Your task to perform on an android device: search for starred emails in the gmail app Image 0: 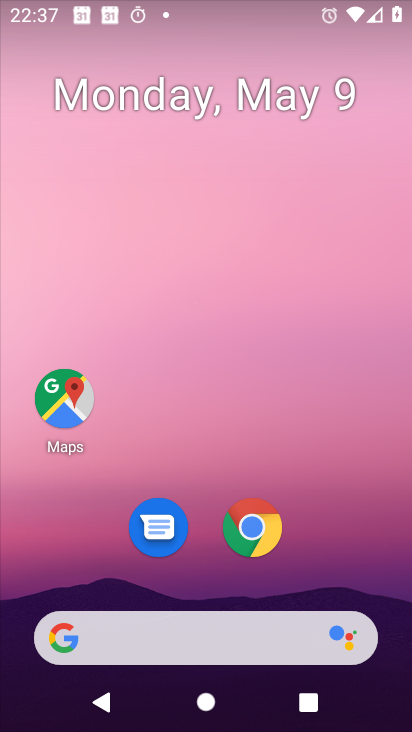
Step 0: drag from (208, 572) to (241, 68)
Your task to perform on an android device: search for starred emails in the gmail app Image 1: 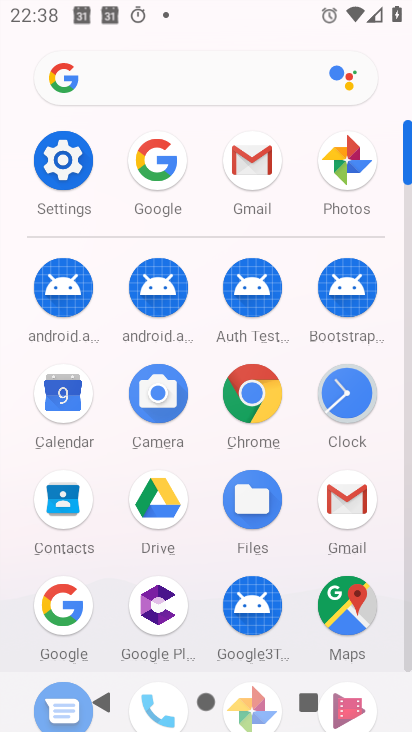
Step 1: click (257, 155)
Your task to perform on an android device: search for starred emails in the gmail app Image 2: 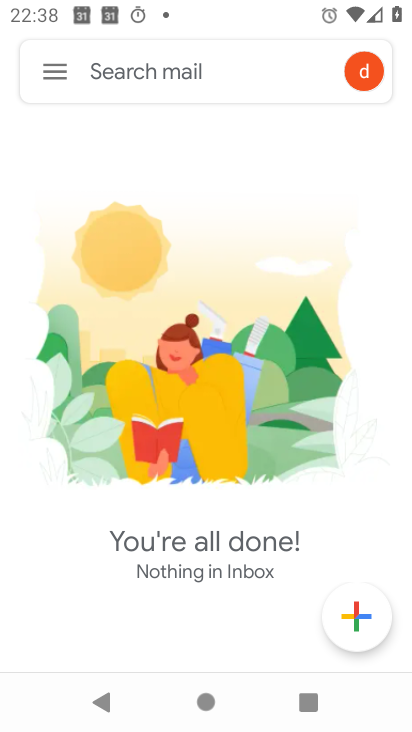
Step 2: click (56, 70)
Your task to perform on an android device: search for starred emails in the gmail app Image 3: 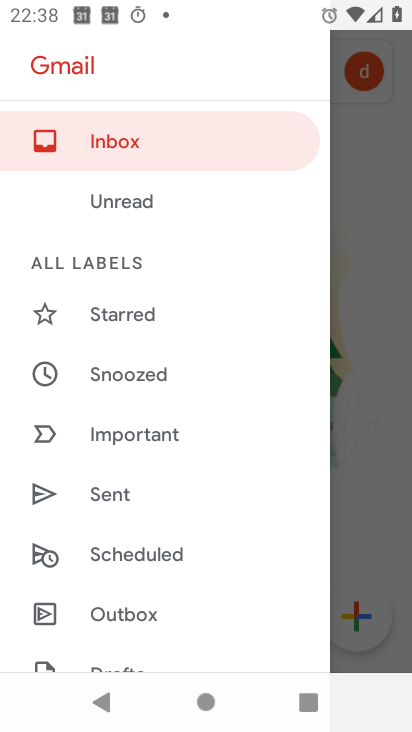
Step 3: click (125, 314)
Your task to perform on an android device: search for starred emails in the gmail app Image 4: 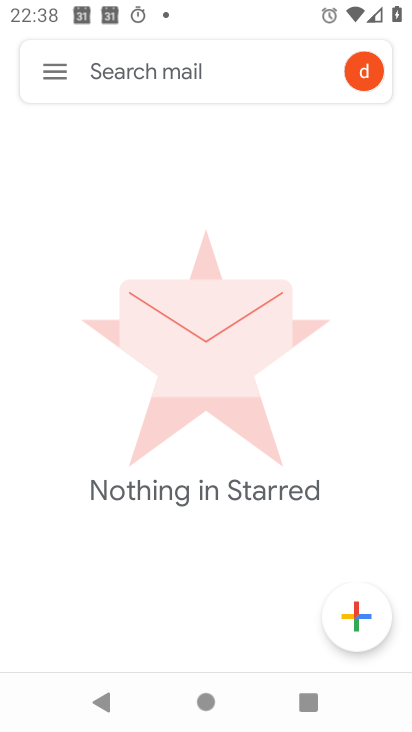
Step 4: task complete